Your task to perform on an android device: turn on sleep mode Image 0: 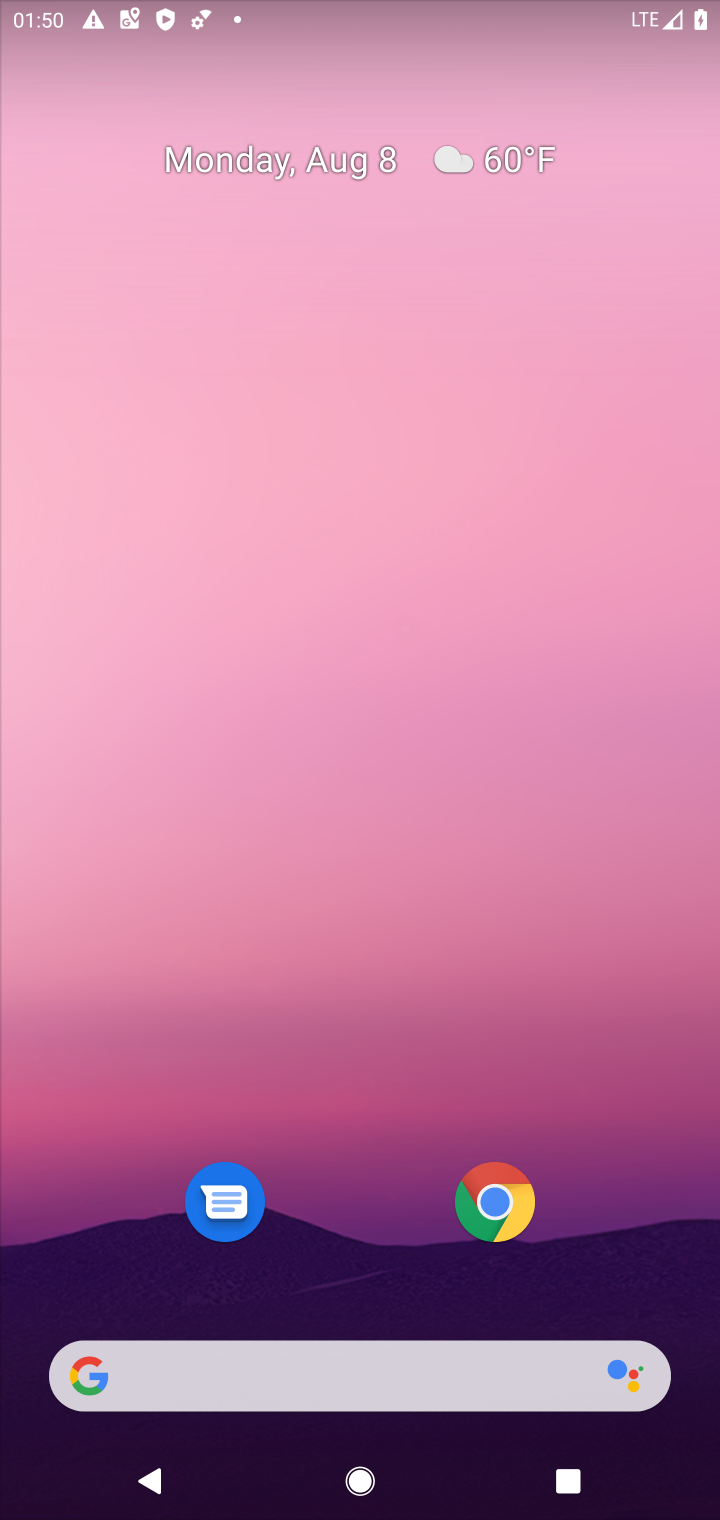
Step 0: drag from (332, 976) to (336, 337)
Your task to perform on an android device: turn on sleep mode Image 1: 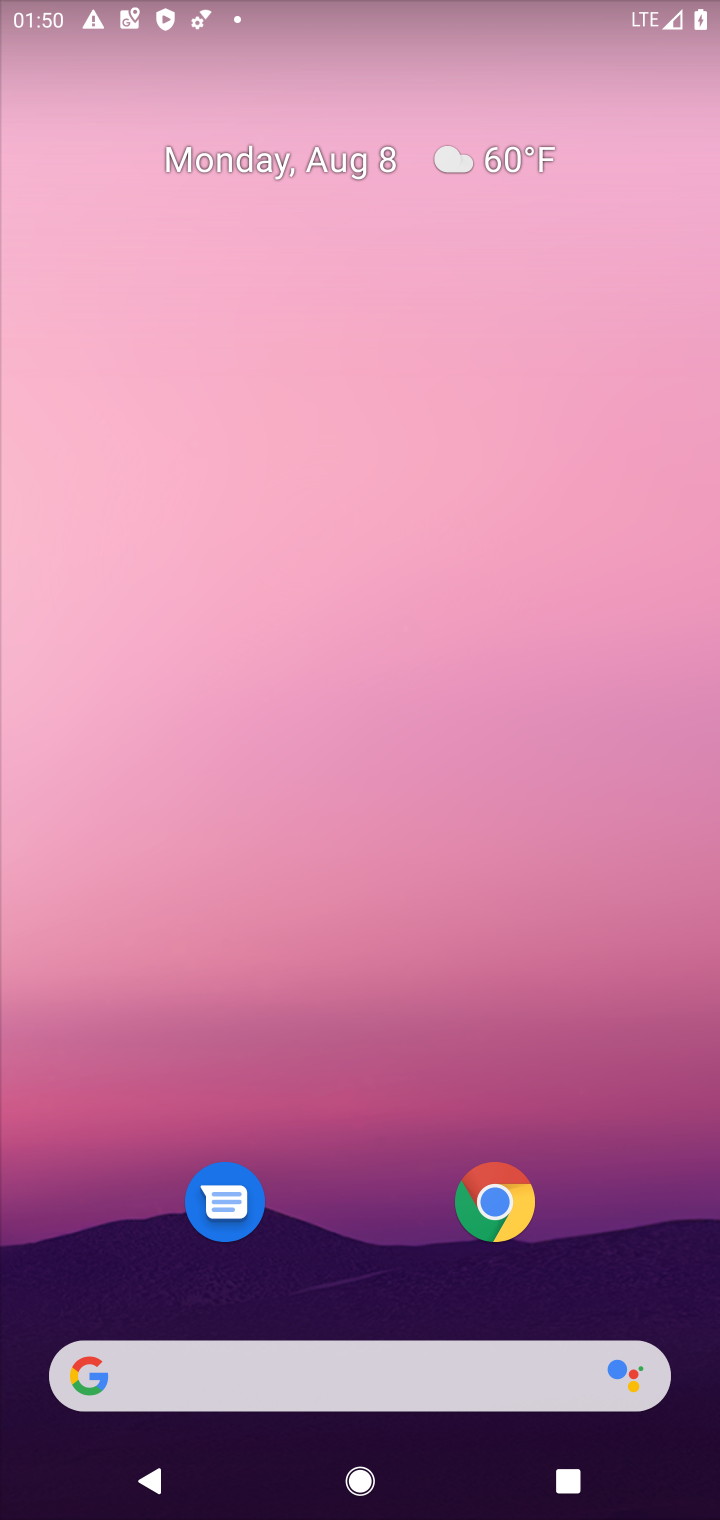
Step 1: task complete